Your task to perform on an android device: Check the weather Image 0: 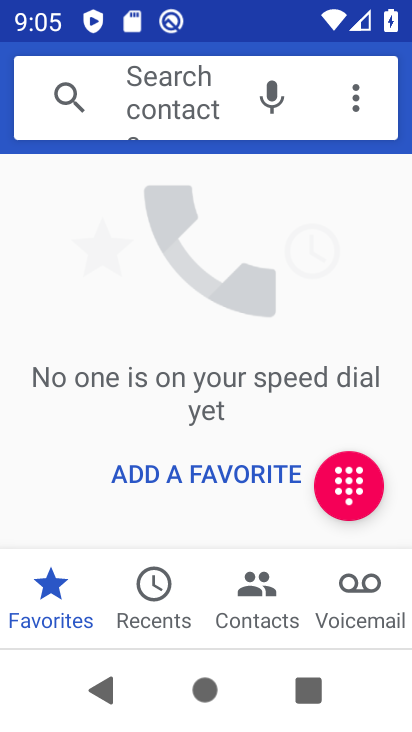
Step 0: press home button
Your task to perform on an android device: Check the weather Image 1: 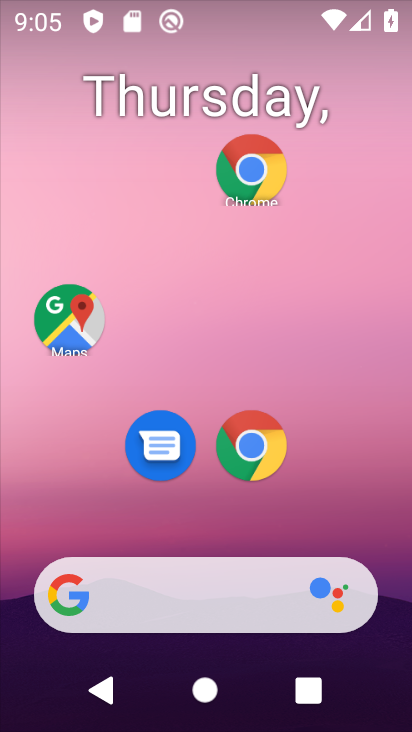
Step 1: click (189, 571)
Your task to perform on an android device: Check the weather Image 2: 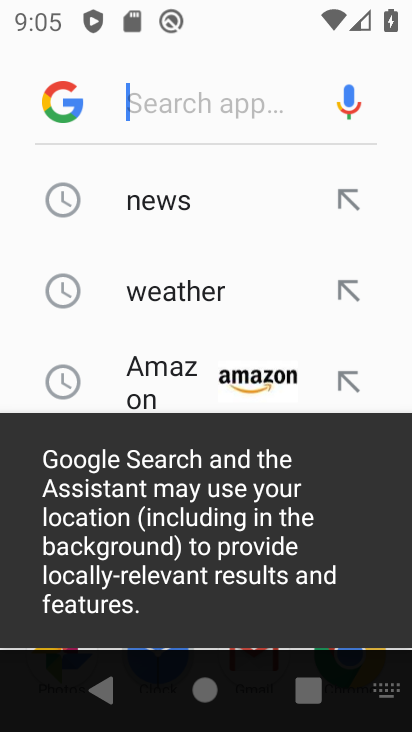
Step 2: click (214, 120)
Your task to perform on an android device: Check the weather Image 3: 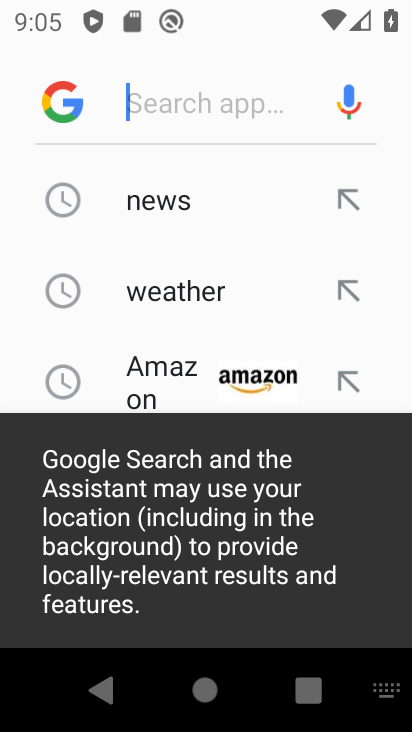
Step 3: click (154, 281)
Your task to perform on an android device: Check the weather Image 4: 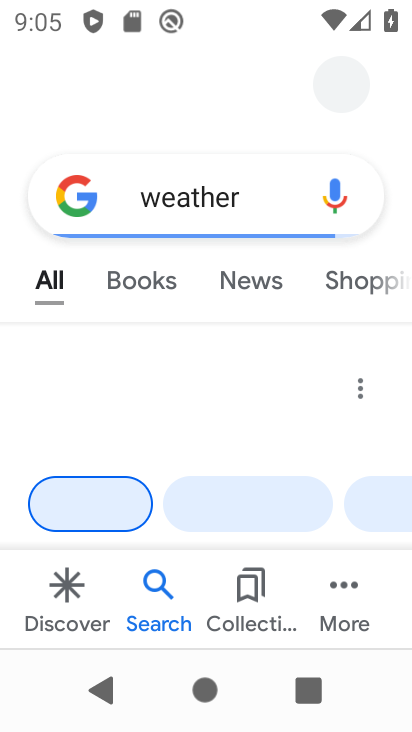
Step 4: task complete